Your task to perform on an android device: find snoozed emails in the gmail app Image 0: 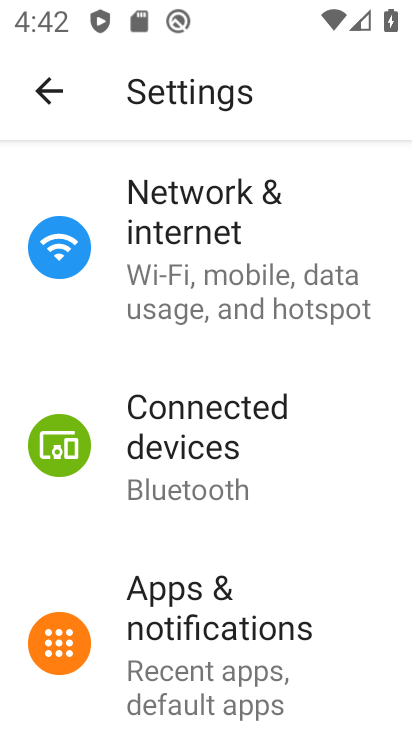
Step 0: press home button
Your task to perform on an android device: find snoozed emails in the gmail app Image 1: 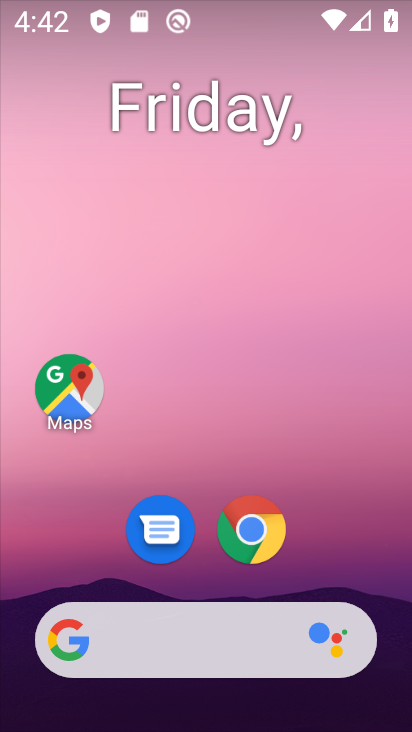
Step 1: drag from (334, 518) to (218, 28)
Your task to perform on an android device: find snoozed emails in the gmail app Image 2: 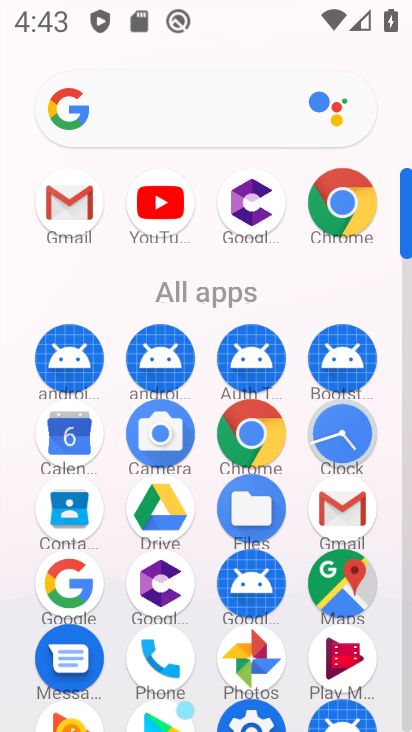
Step 2: click (66, 212)
Your task to perform on an android device: find snoozed emails in the gmail app Image 3: 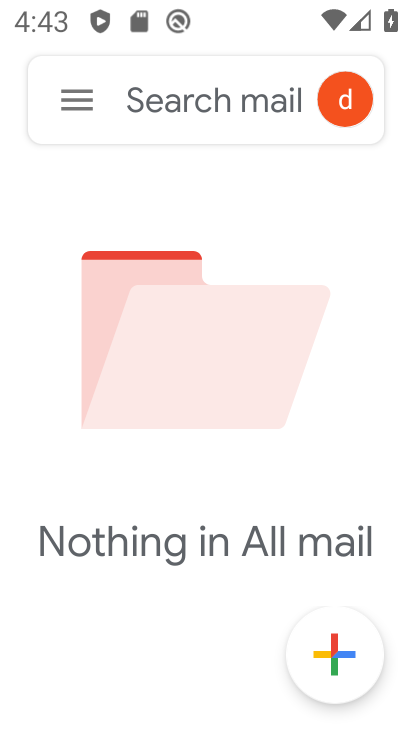
Step 3: click (75, 100)
Your task to perform on an android device: find snoozed emails in the gmail app Image 4: 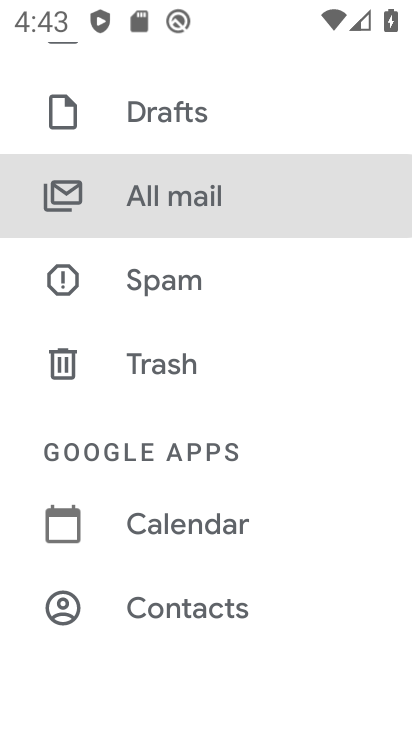
Step 4: task complete